Your task to perform on an android device: Open Maps and search for coffee Image 0: 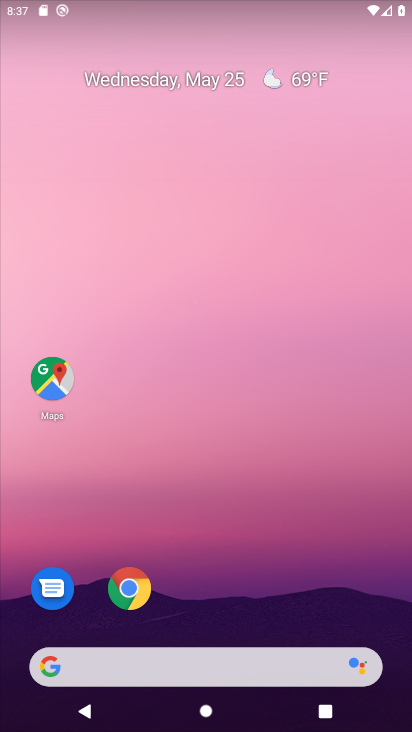
Step 0: drag from (381, 610) to (368, 321)
Your task to perform on an android device: Open Maps and search for coffee Image 1: 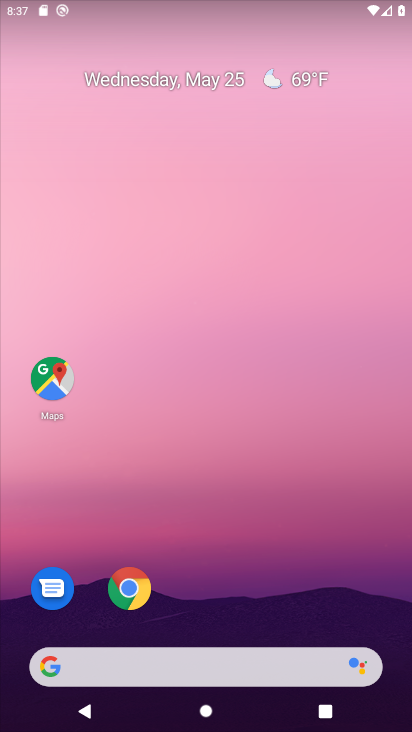
Step 1: drag from (362, 594) to (363, 400)
Your task to perform on an android device: Open Maps and search for coffee Image 2: 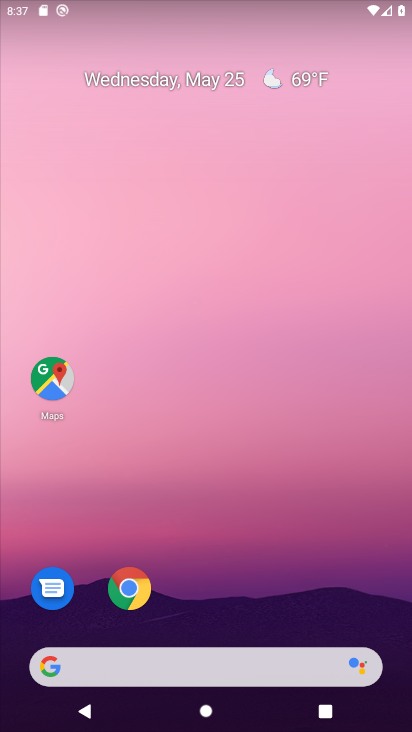
Step 2: drag from (300, 587) to (348, 252)
Your task to perform on an android device: Open Maps and search for coffee Image 3: 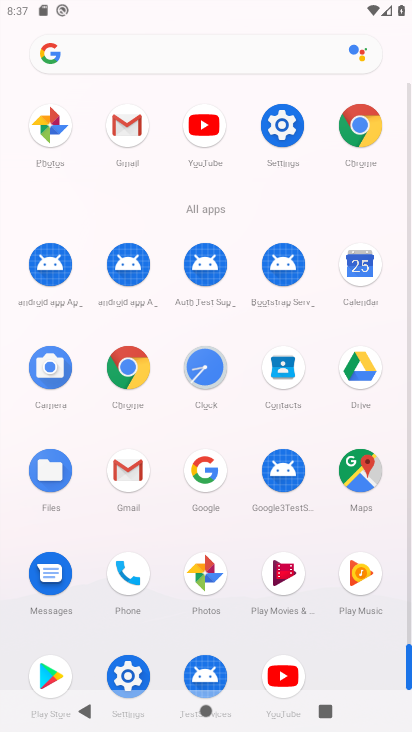
Step 3: click (379, 480)
Your task to perform on an android device: Open Maps and search for coffee Image 4: 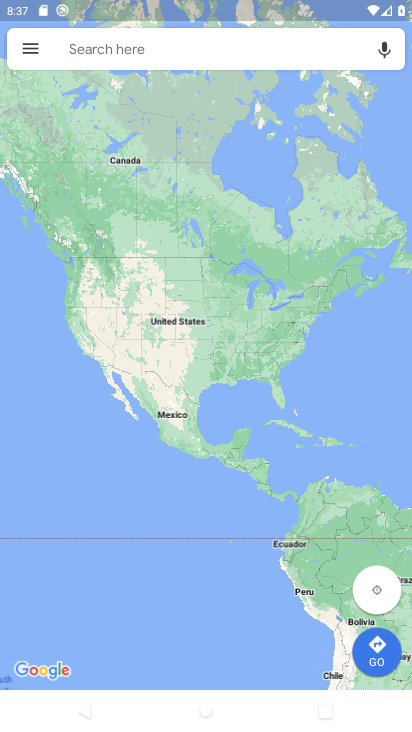
Step 4: click (150, 48)
Your task to perform on an android device: Open Maps and search for coffee Image 5: 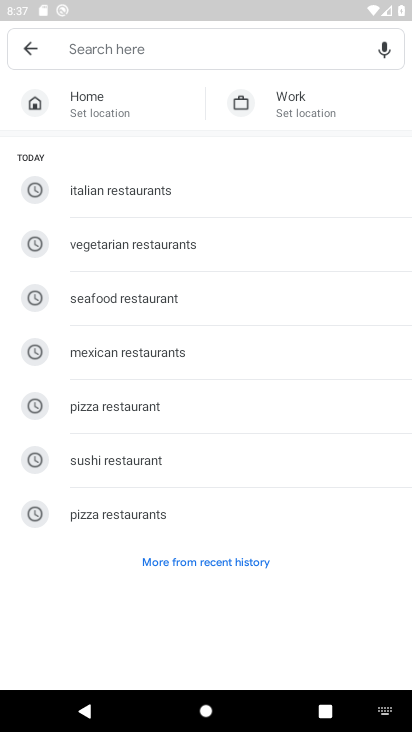
Step 5: type "coffee"
Your task to perform on an android device: Open Maps and search for coffee Image 6: 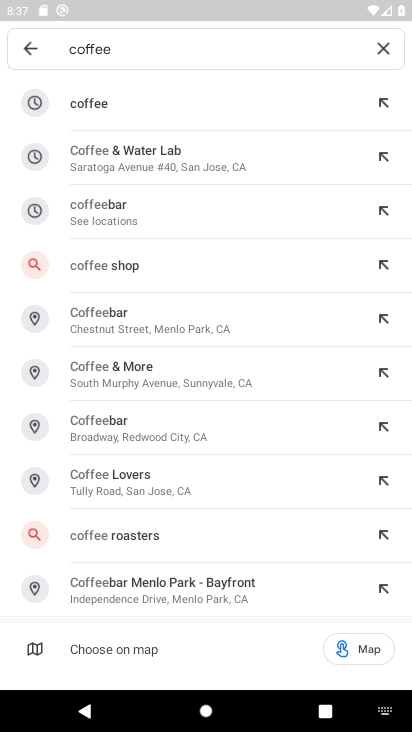
Step 6: click (193, 108)
Your task to perform on an android device: Open Maps and search for coffee Image 7: 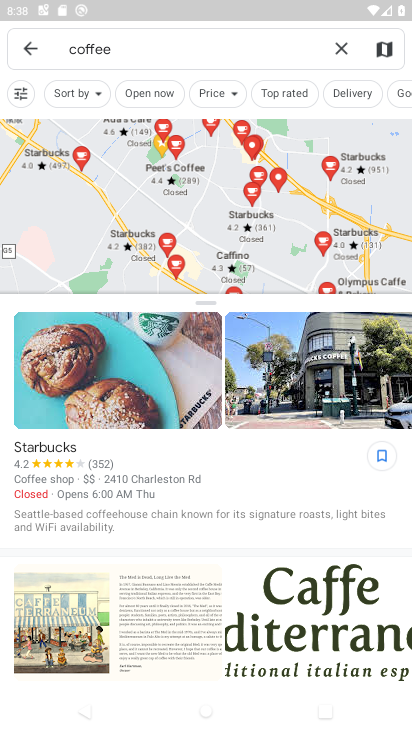
Step 7: task complete